Your task to perform on an android device: turn on data saver in the chrome app Image 0: 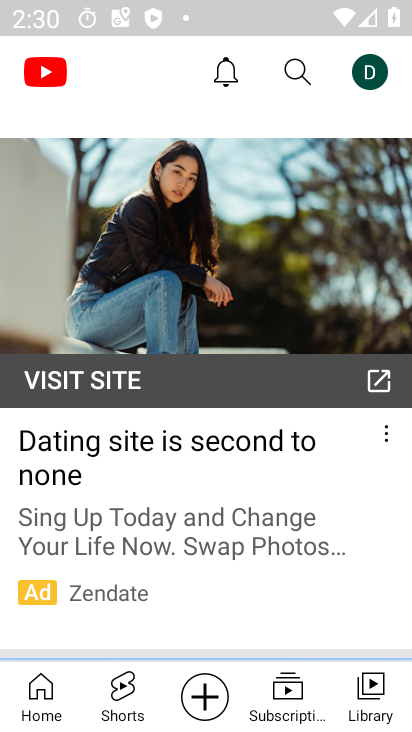
Step 0: press home button
Your task to perform on an android device: turn on data saver in the chrome app Image 1: 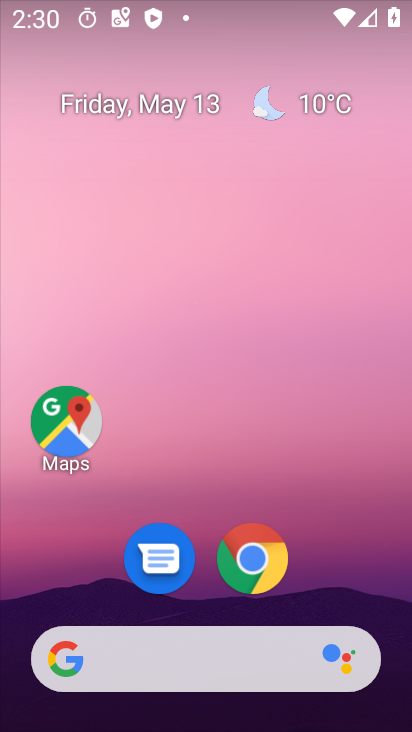
Step 1: click (268, 553)
Your task to perform on an android device: turn on data saver in the chrome app Image 2: 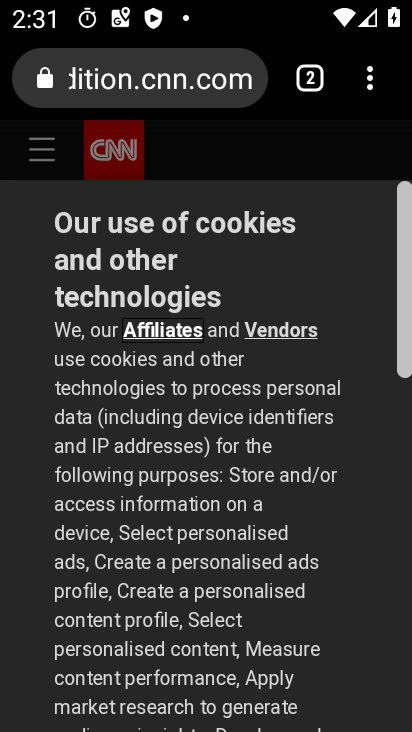
Step 2: click (373, 92)
Your task to perform on an android device: turn on data saver in the chrome app Image 3: 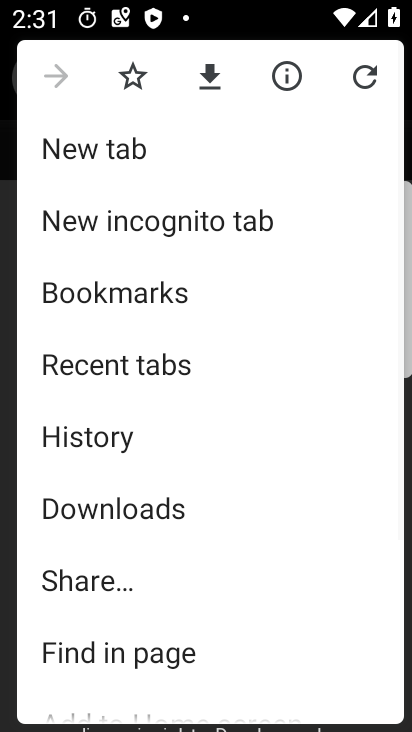
Step 3: drag from (182, 608) to (199, 347)
Your task to perform on an android device: turn on data saver in the chrome app Image 4: 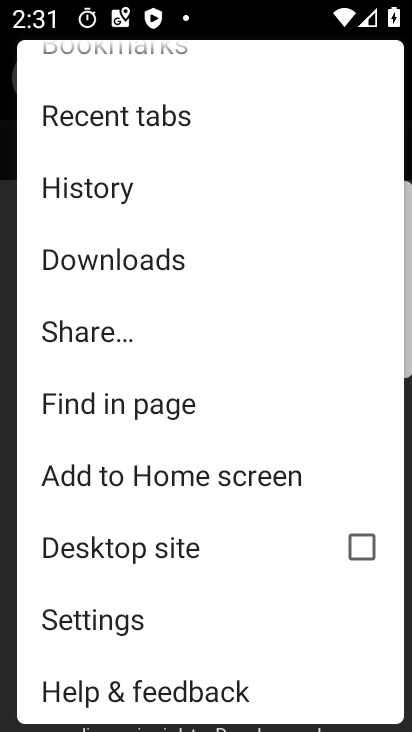
Step 4: click (137, 606)
Your task to perform on an android device: turn on data saver in the chrome app Image 5: 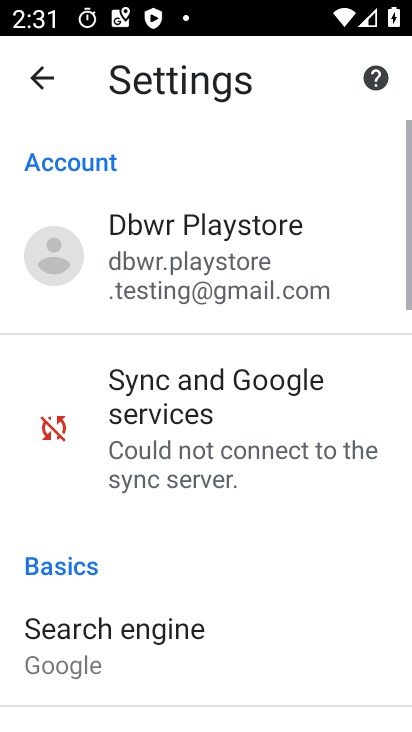
Step 5: drag from (156, 665) to (178, 299)
Your task to perform on an android device: turn on data saver in the chrome app Image 6: 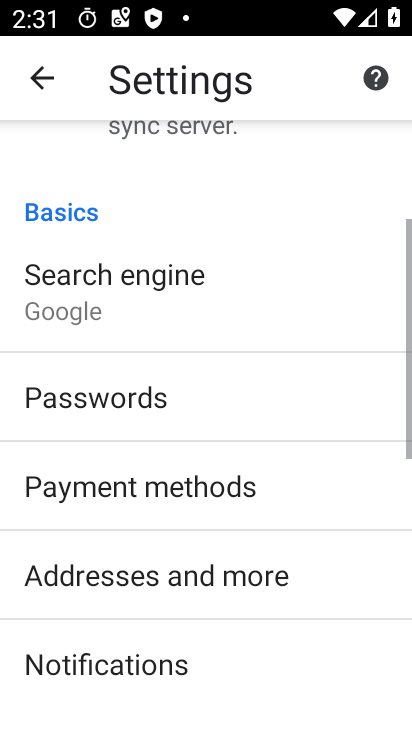
Step 6: drag from (165, 651) to (195, 309)
Your task to perform on an android device: turn on data saver in the chrome app Image 7: 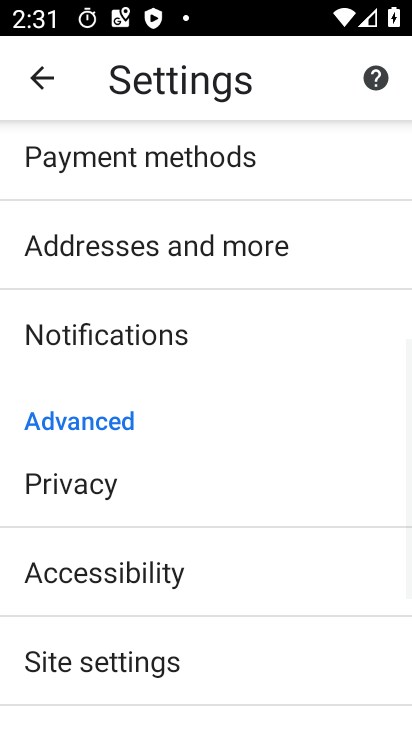
Step 7: drag from (198, 652) to (198, 384)
Your task to perform on an android device: turn on data saver in the chrome app Image 8: 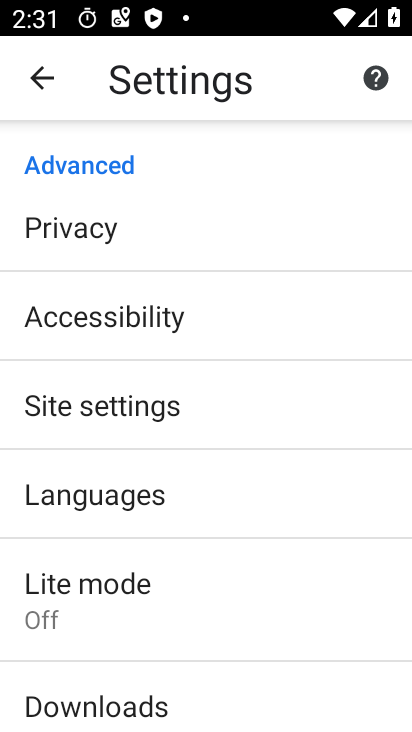
Step 8: click (142, 594)
Your task to perform on an android device: turn on data saver in the chrome app Image 9: 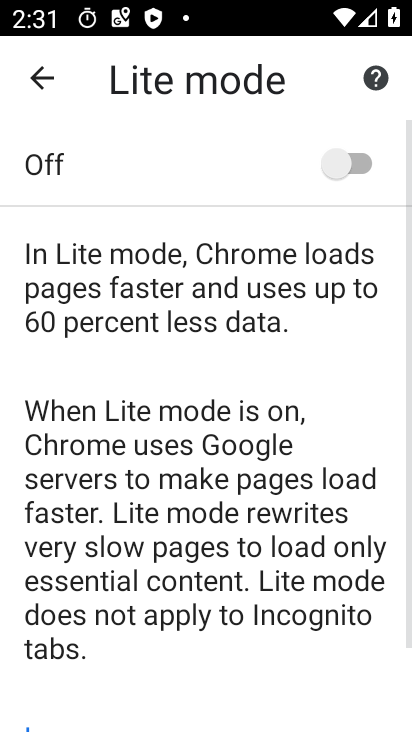
Step 9: click (361, 161)
Your task to perform on an android device: turn on data saver in the chrome app Image 10: 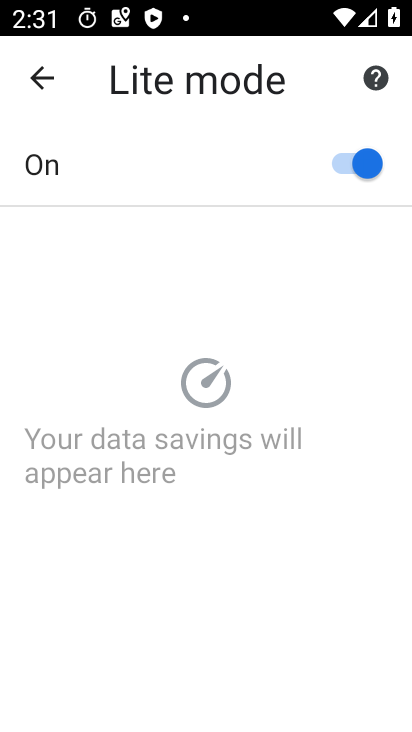
Step 10: task complete